Your task to perform on an android device: check out phone information Image 0: 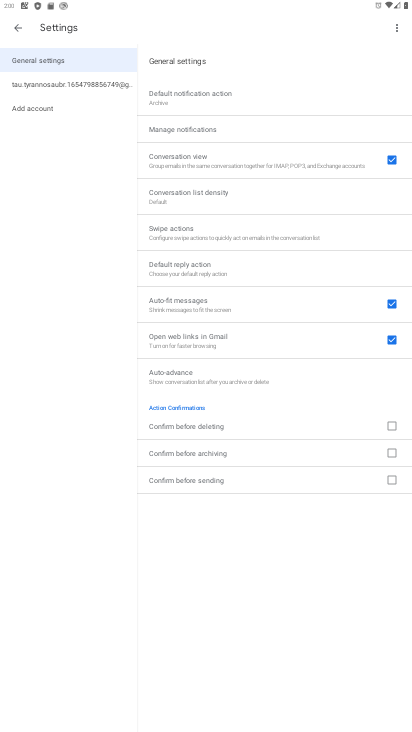
Step 0: press home button
Your task to perform on an android device: check out phone information Image 1: 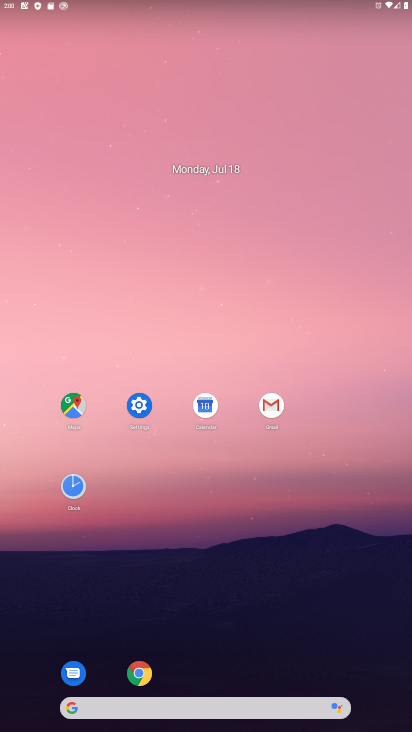
Step 1: drag from (376, 709) to (331, 110)
Your task to perform on an android device: check out phone information Image 2: 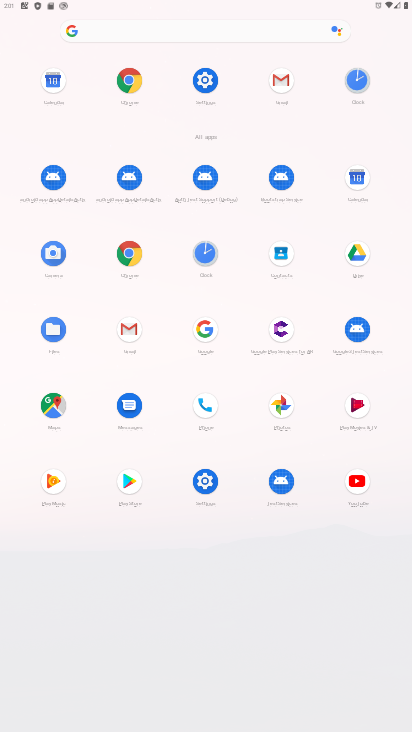
Step 2: click (202, 85)
Your task to perform on an android device: check out phone information Image 3: 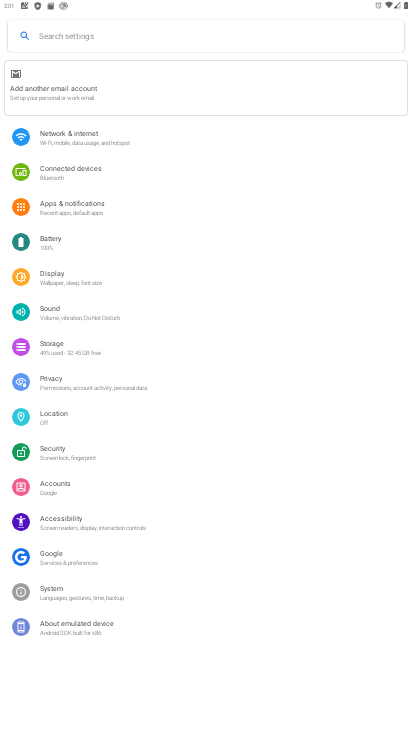
Step 3: click (65, 622)
Your task to perform on an android device: check out phone information Image 4: 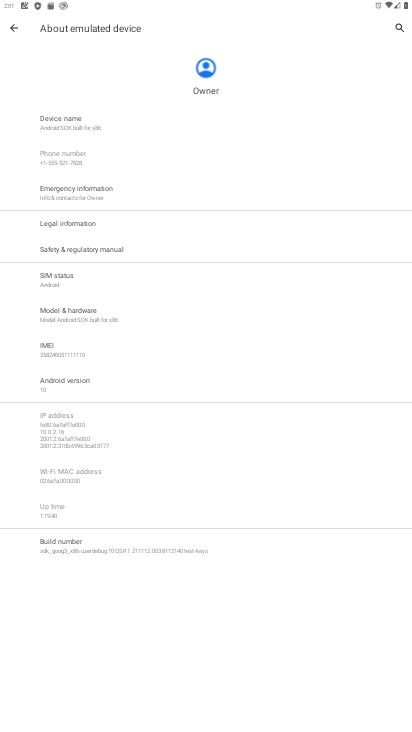
Step 4: task complete